Your task to perform on an android device: allow notifications from all sites in the chrome app Image 0: 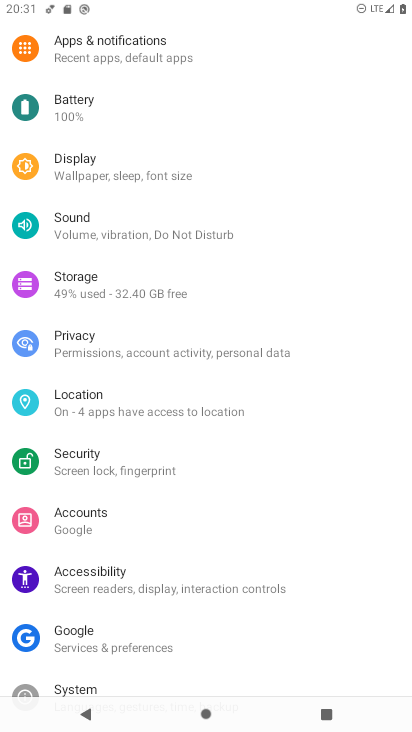
Step 0: press home button
Your task to perform on an android device: allow notifications from all sites in the chrome app Image 1: 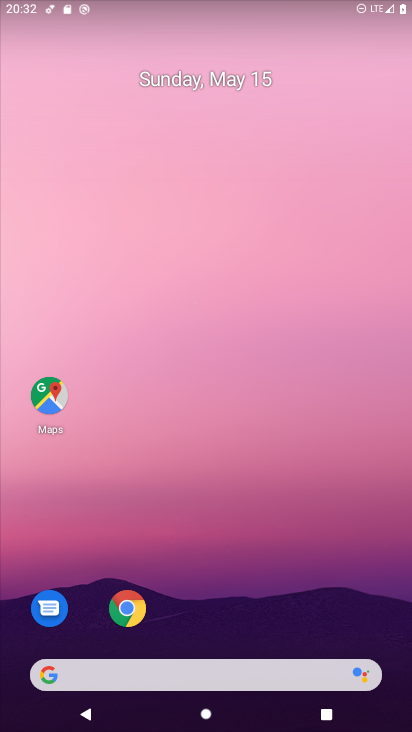
Step 1: click (129, 604)
Your task to perform on an android device: allow notifications from all sites in the chrome app Image 2: 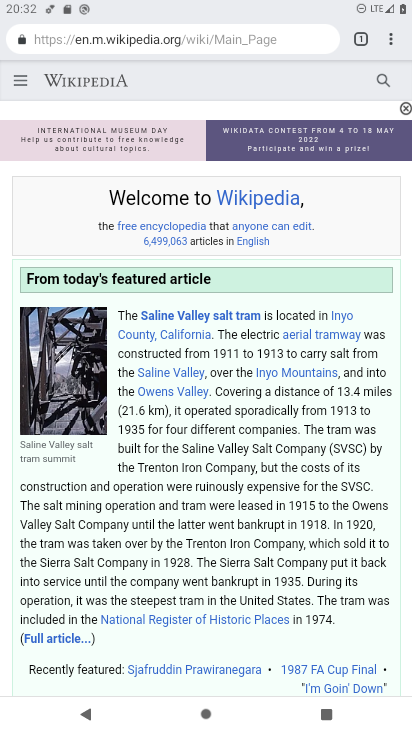
Step 2: click (384, 37)
Your task to perform on an android device: allow notifications from all sites in the chrome app Image 3: 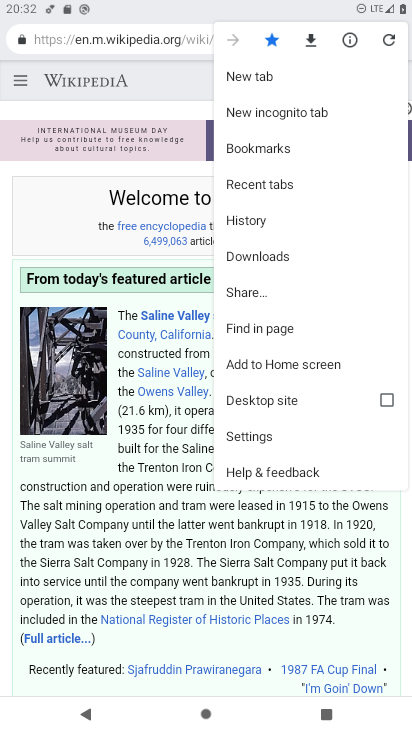
Step 3: click (246, 438)
Your task to perform on an android device: allow notifications from all sites in the chrome app Image 4: 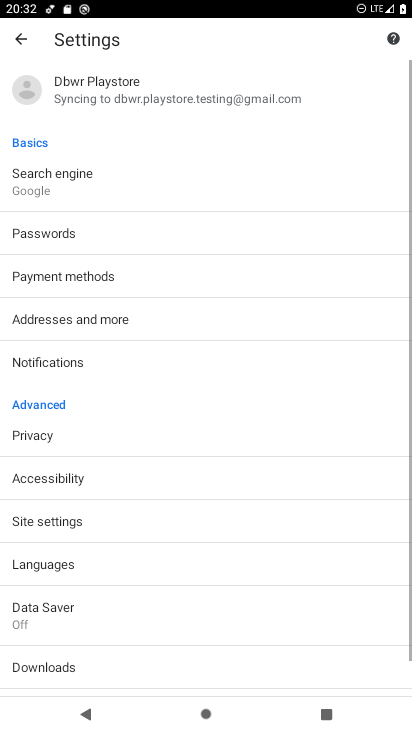
Step 4: drag from (86, 591) to (66, 403)
Your task to perform on an android device: allow notifications from all sites in the chrome app Image 5: 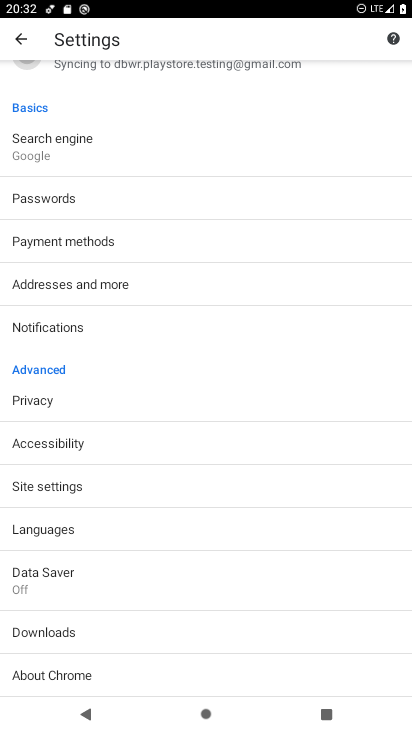
Step 5: click (57, 488)
Your task to perform on an android device: allow notifications from all sites in the chrome app Image 6: 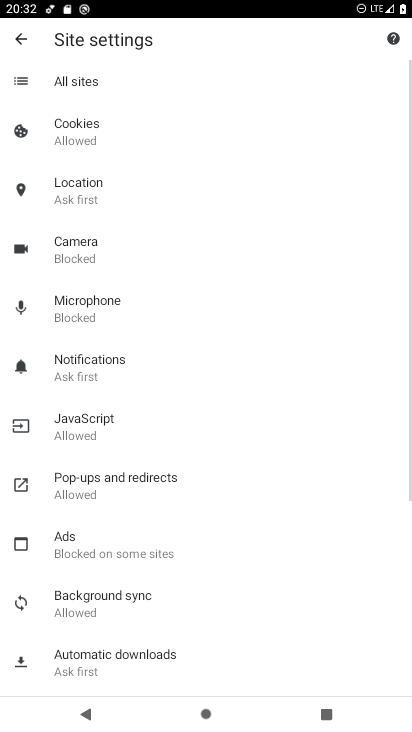
Step 6: click (113, 373)
Your task to perform on an android device: allow notifications from all sites in the chrome app Image 7: 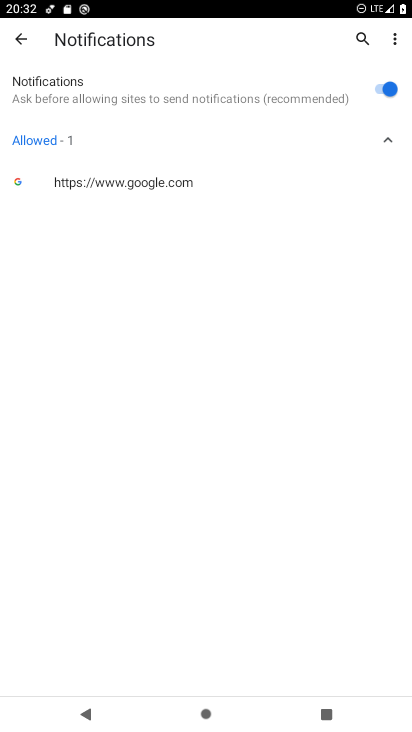
Step 7: task complete